Your task to perform on an android device: Is it going to rain tomorrow? Image 0: 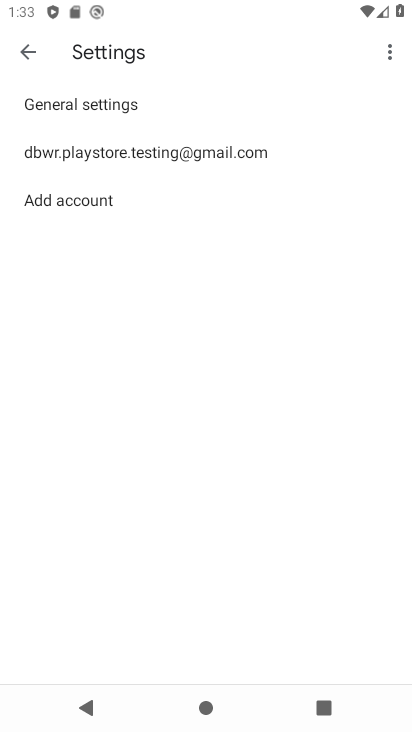
Step 0: press home button
Your task to perform on an android device: Is it going to rain tomorrow? Image 1: 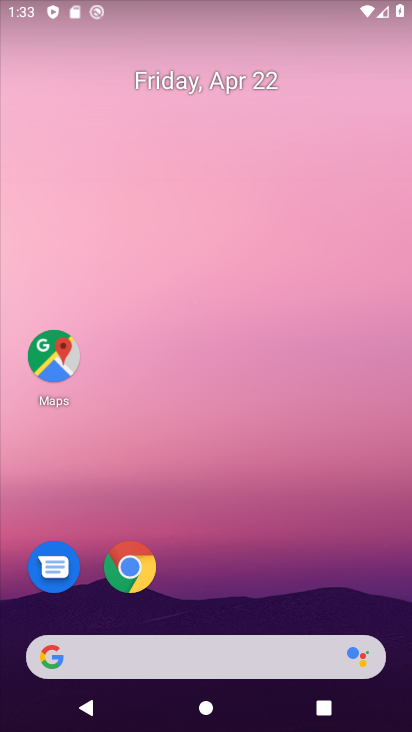
Step 1: click (190, 656)
Your task to perform on an android device: Is it going to rain tomorrow? Image 2: 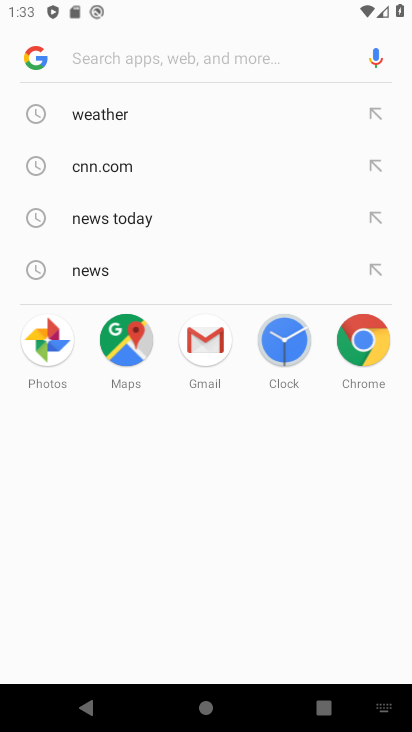
Step 2: click (31, 54)
Your task to perform on an android device: Is it going to rain tomorrow? Image 3: 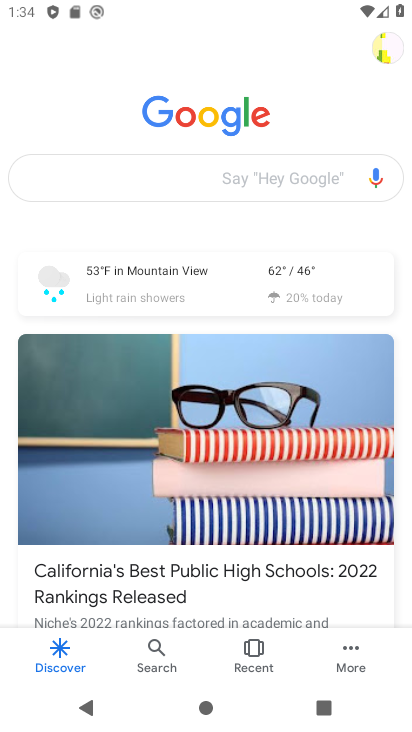
Step 3: click (280, 272)
Your task to perform on an android device: Is it going to rain tomorrow? Image 4: 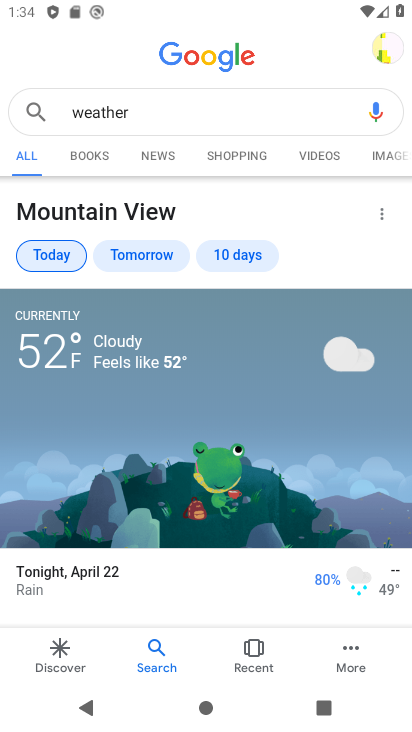
Step 4: task complete